Your task to perform on an android device: show emergency info Image 0: 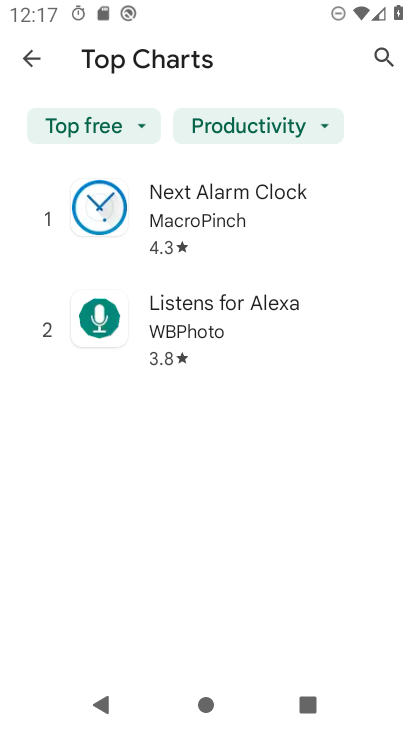
Step 0: press home button
Your task to perform on an android device: show emergency info Image 1: 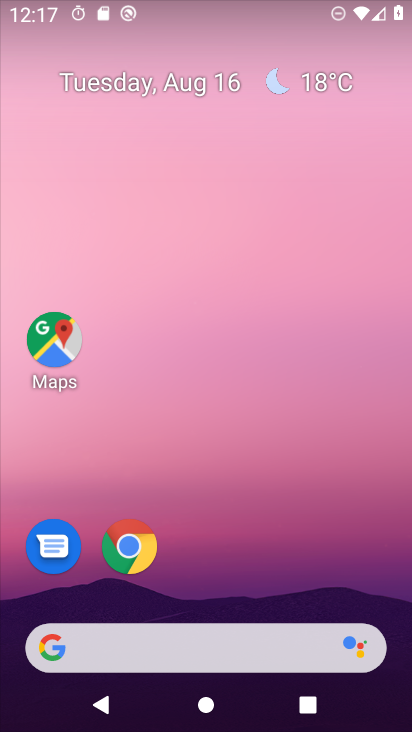
Step 1: drag from (227, 540) to (191, 103)
Your task to perform on an android device: show emergency info Image 2: 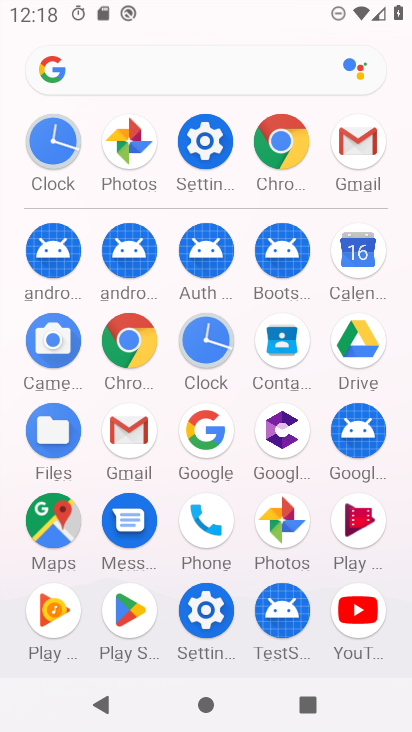
Step 2: click (207, 135)
Your task to perform on an android device: show emergency info Image 3: 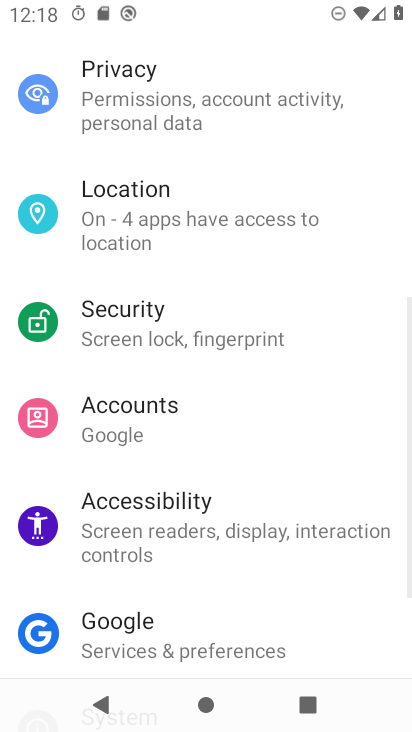
Step 3: drag from (188, 648) to (122, 142)
Your task to perform on an android device: show emergency info Image 4: 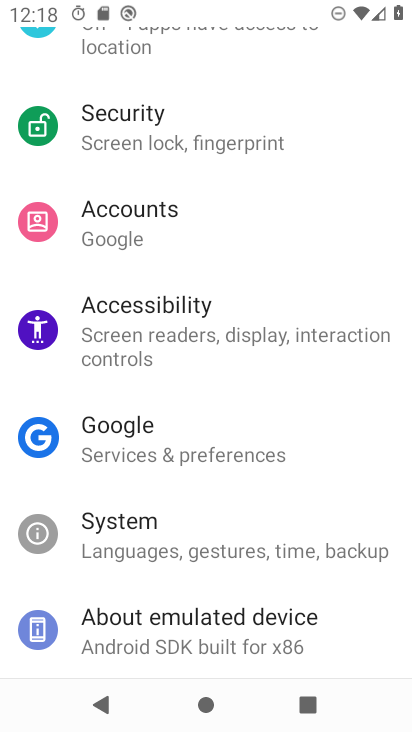
Step 4: click (153, 633)
Your task to perform on an android device: show emergency info Image 5: 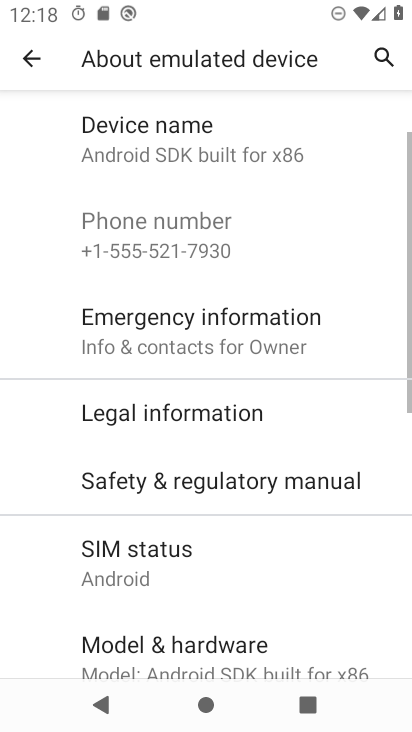
Step 5: click (187, 339)
Your task to perform on an android device: show emergency info Image 6: 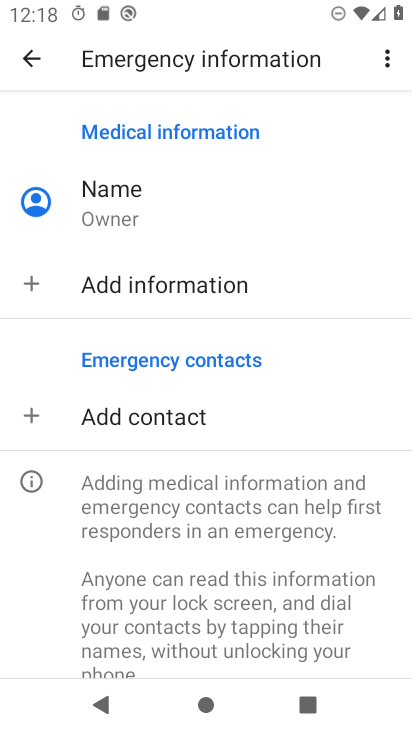
Step 6: task complete